Your task to perform on an android device: turn pop-ups off in chrome Image 0: 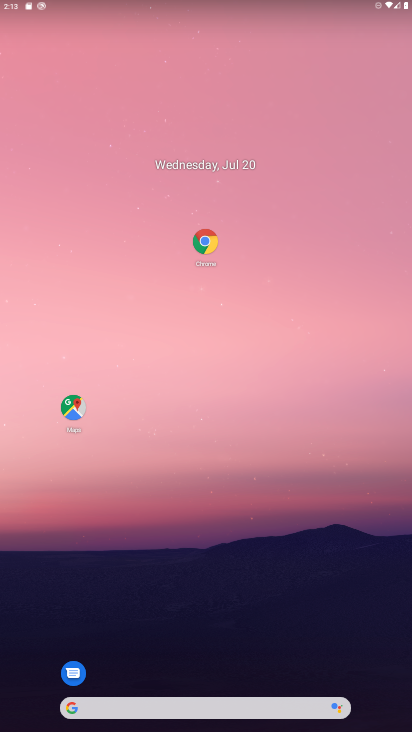
Step 0: click (201, 242)
Your task to perform on an android device: turn pop-ups off in chrome Image 1: 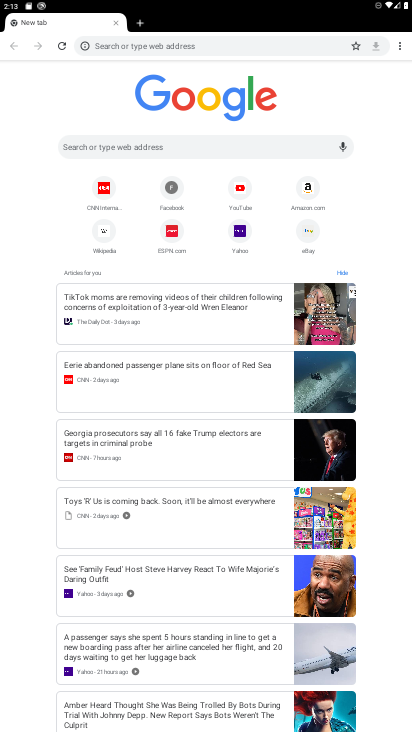
Step 1: click (396, 48)
Your task to perform on an android device: turn pop-ups off in chrome Image 2: 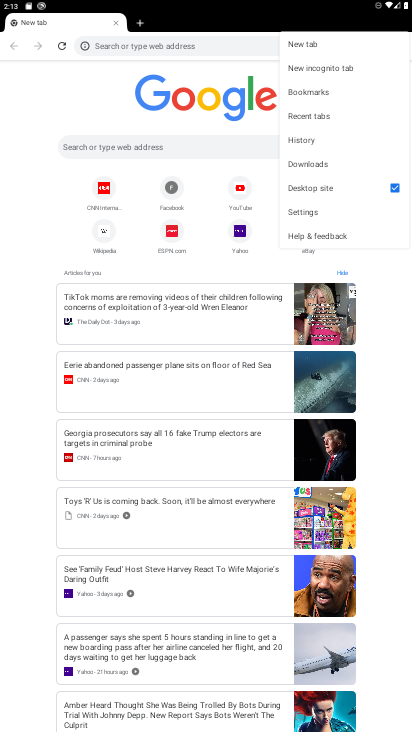
Step 2: click (312, 209)
Your task to perform on an android device: turn pop-ups off in chrome Image 3: 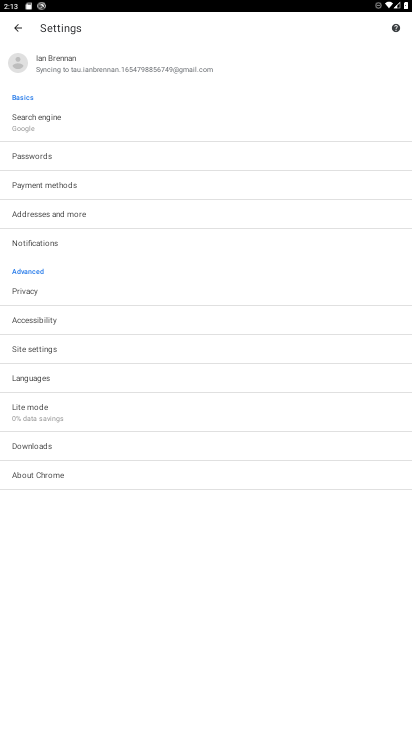
Step 3: click (34, 349)
Your task to perform on an android device: turn pop-ups off in chrome Image 4: 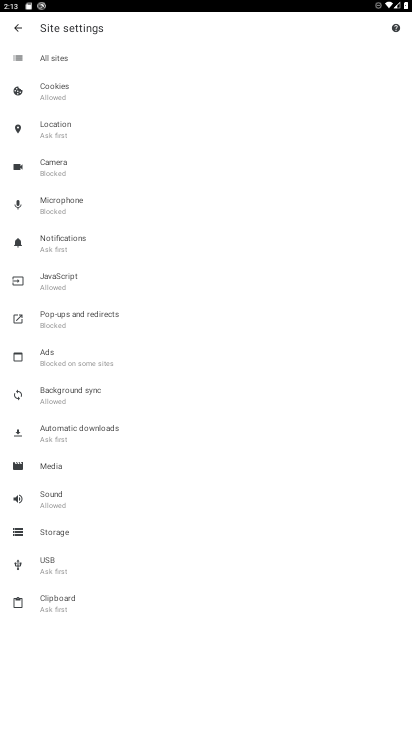
Step 4: click (72, 317)
Your task to perform on an android device: turn pop-ups off in chrome Image 5: 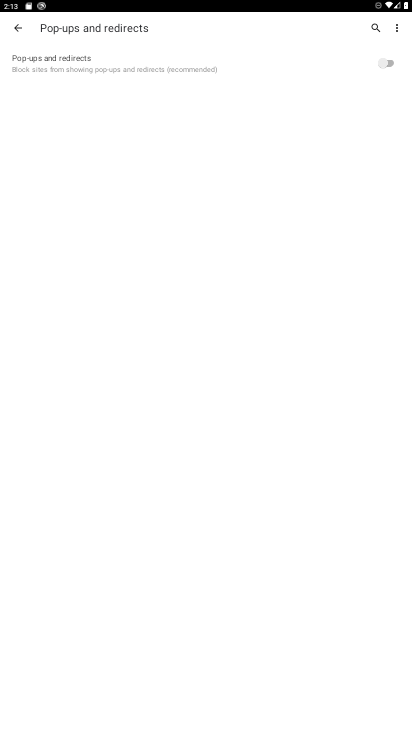
Step 5: task complete